Your task to perform on an android device: turn off location history Image 0: 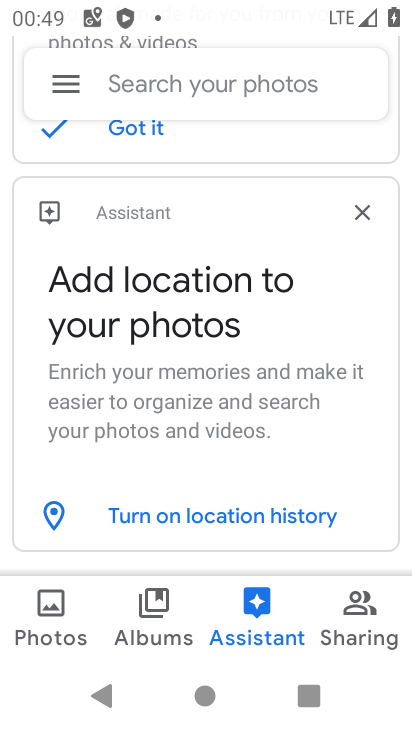
Step 0: press home button
Your task to perform on an android device: turn off location history Image 1: 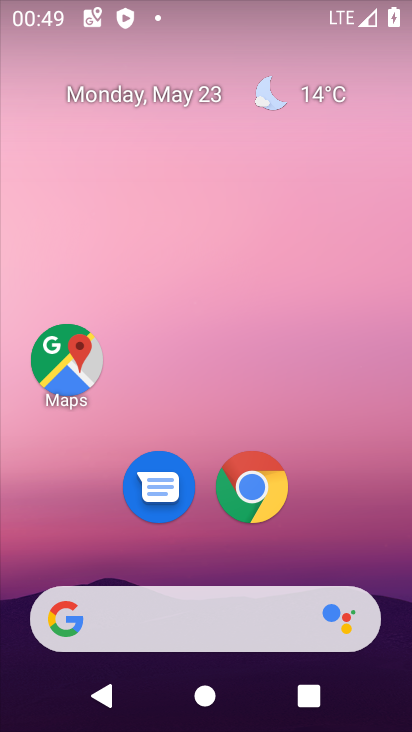
Step 1: click (406, 620)
Your task to perform on an android device: turn off location history Image 2: 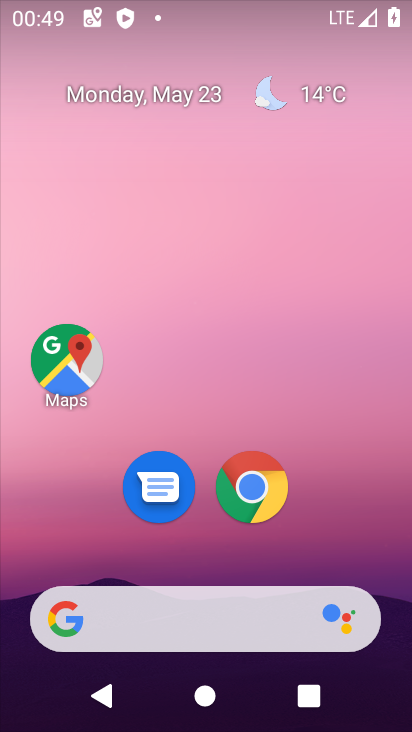
Step 2: click (71, 359)
Your task to perform on an android device: turn off location history Image 3: 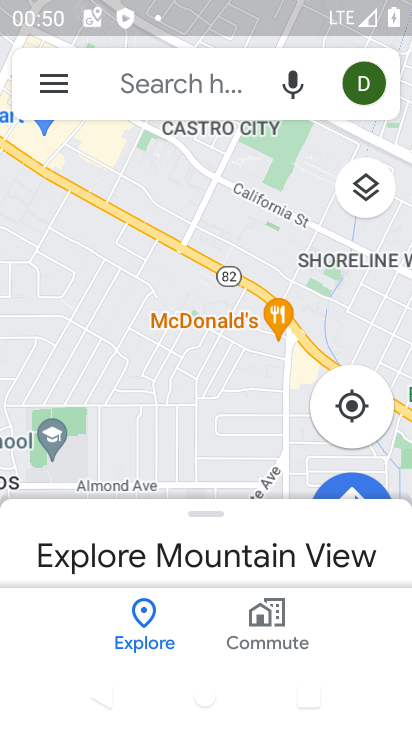
Step 3: click (50, 84)
Your task to perform on an android device: turn off location history Image 4: 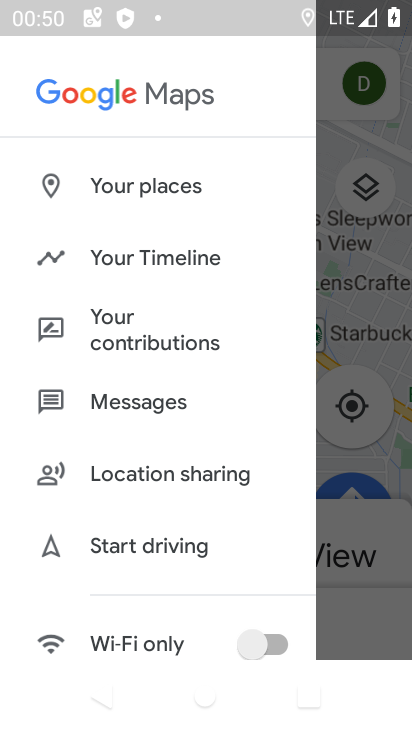
Step 4: drag from (295, 587) to (269, 86)
Your task to perform on an android device: turn off location history Image 5: 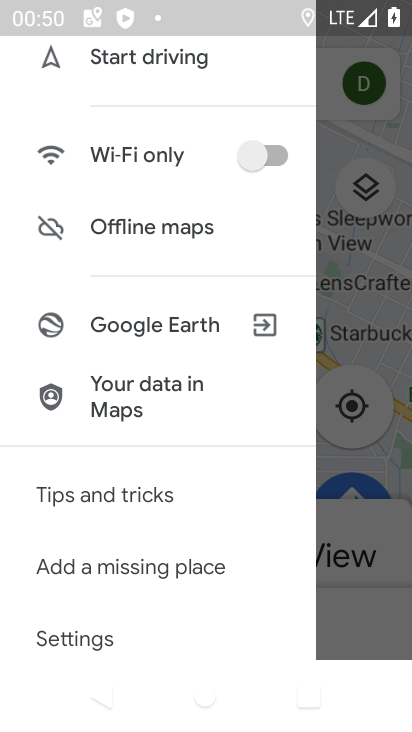
Step 5: drag from (248, 598) to (225, 208)
Your task to perform on an android device: turn off location history Image 6: 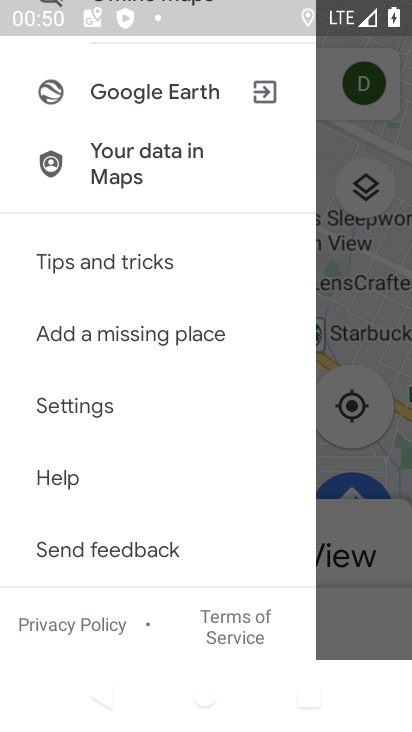
Step 6: click (70, 414)
Your task to perform on an android device: turn off location history Image 7: 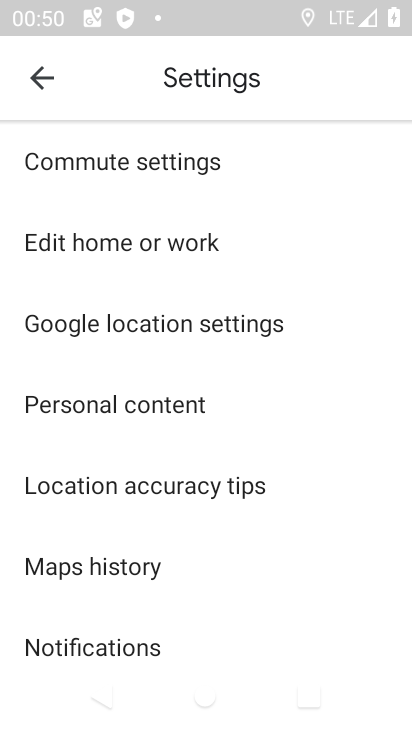
Step 7: click (97, 408)
Your task to perform on an android device: turn off location history Image 8: 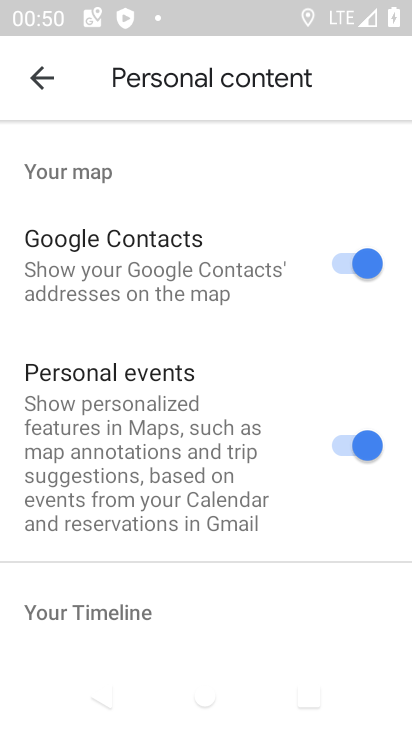
Step 8: task complete